Your task to perform on an android device: set the timer Image 0: 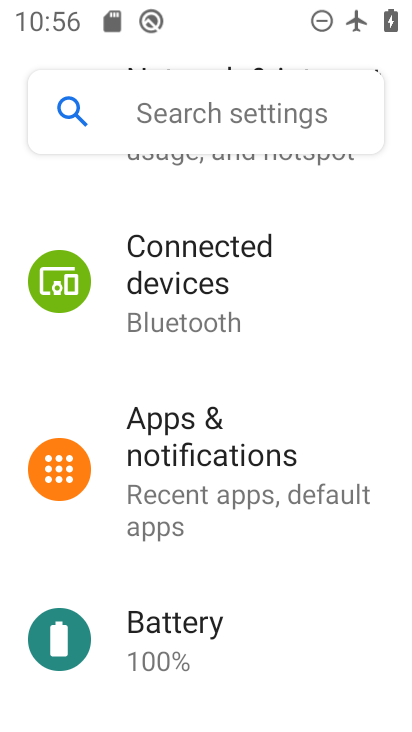
Step 0: press home button
Your task to perform on an android device: set the timer Image 1: 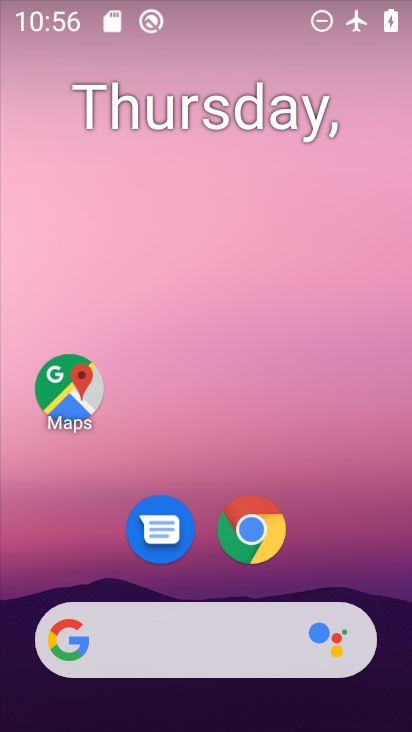
Step 1: drag from (198, 702) to (314, 88)
Your task to perform on an android device: set the timer Image 2: 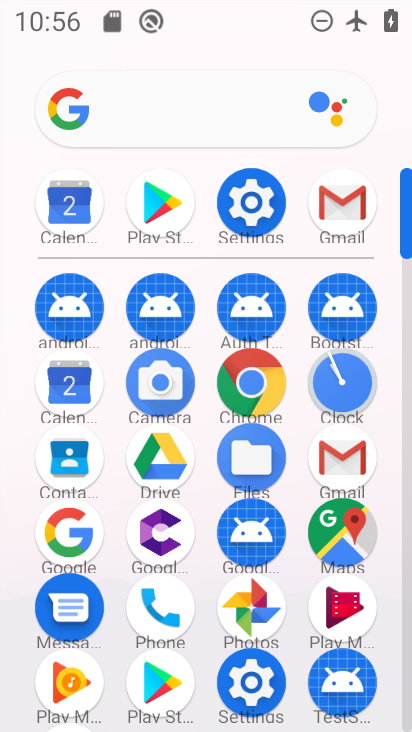
Step 2: click (336, 367)
Your task to perform on an android device: set the timer Image 3: 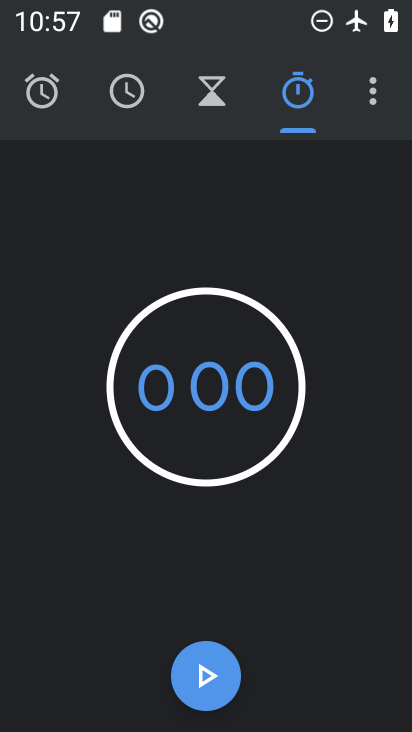
Step 3: click (214, 88)
Your task to perform on an android device: set the timer Image 4: 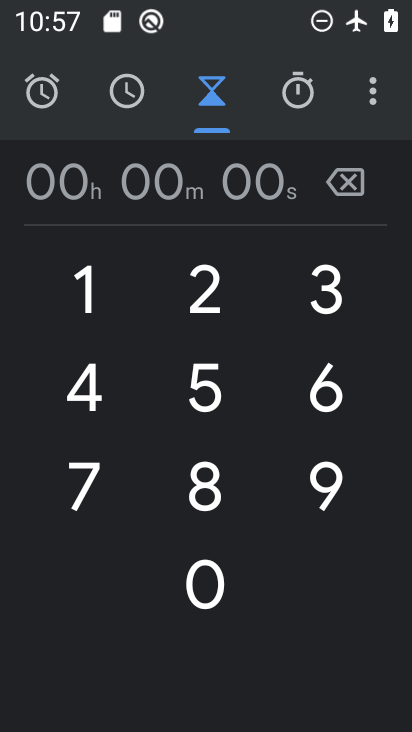
Step 4: click (185, 389)
Your task to perform on an android device: set the timer Image 5: 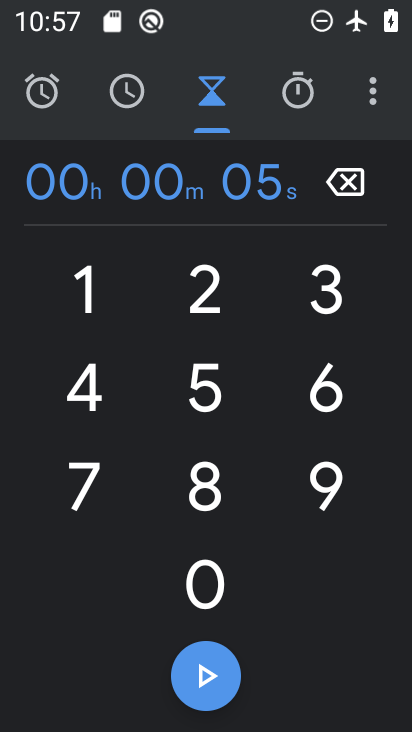
Step 5: click (192, 494)
Your task to perform on an android device: set the timer Image 6: 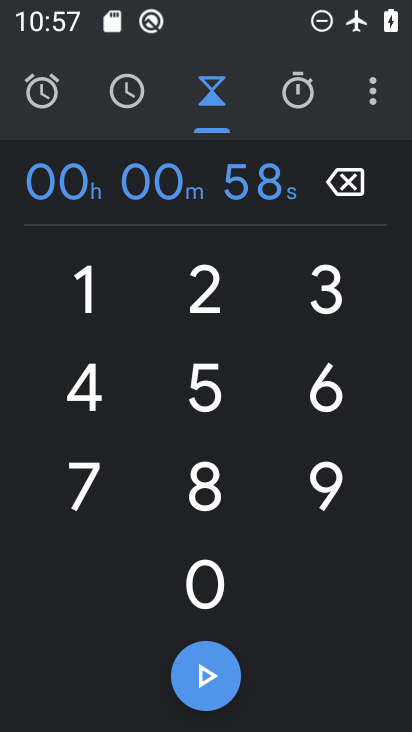
Step 6: click (337, 390)
Your task to perform on an android device: set the timer Image 7: 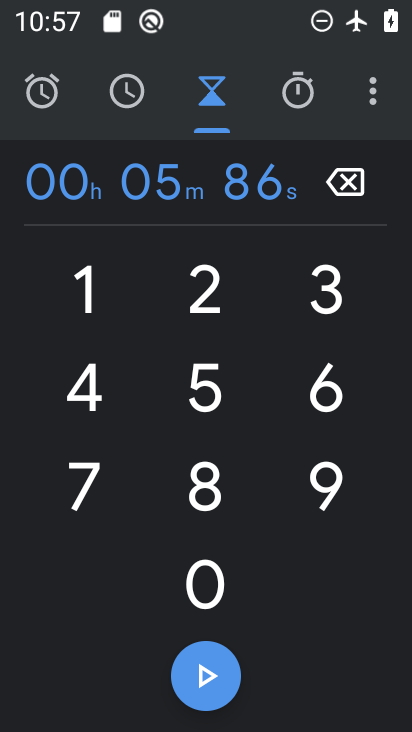
Step 7: task complete